Your task to perform on an android device: Install the Uber app Image 0: 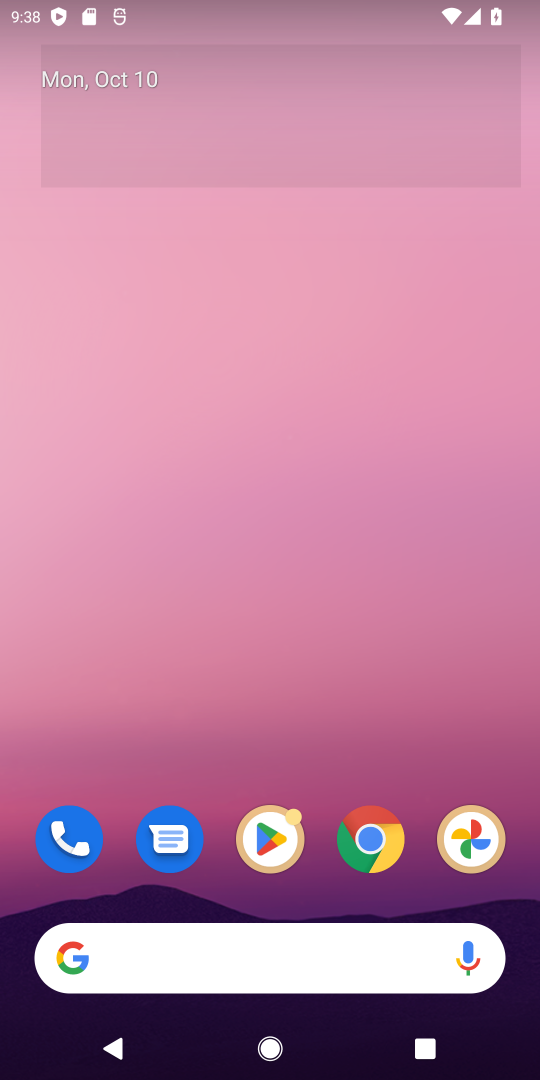
Step 0: drag from (313, 893) to (396, 25)
Your task to perform on an android device: Install the Uber app Image 1: 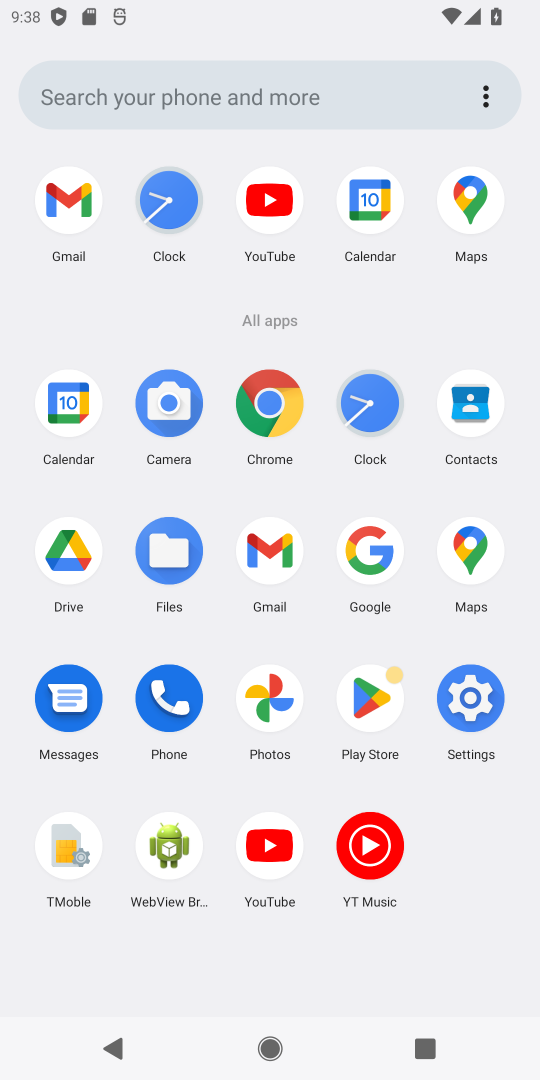
Step 1: click (372, 693)
Your task to perform on an android device: Install the Uber app Image 2: 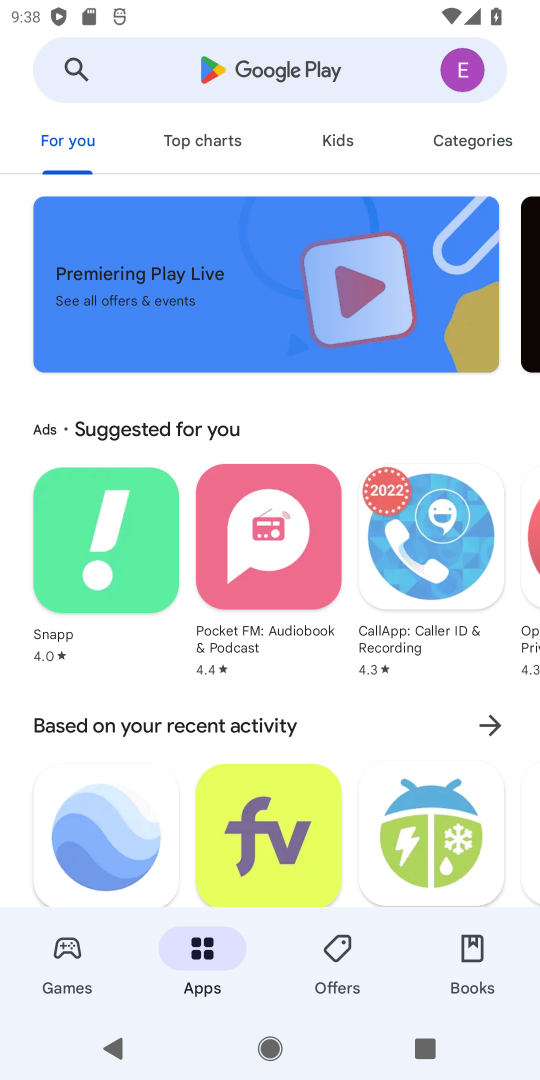
Step 2: click (213, 68)
Your task to perform on an android device: Install the Uber app Image 3: 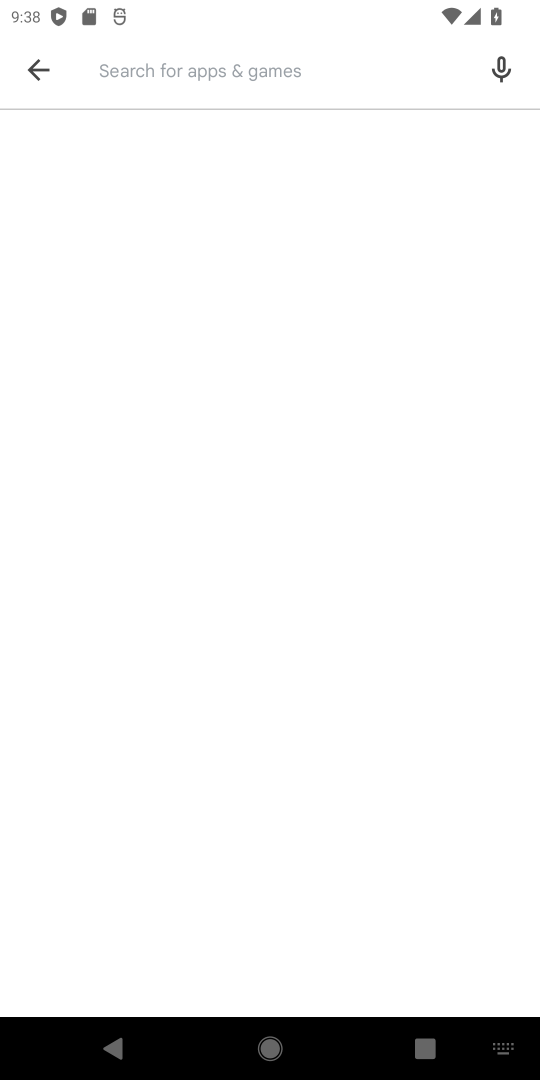
Step 3: type "Uber "
Your task to perform on an android device: Install the Uber app Image 4: 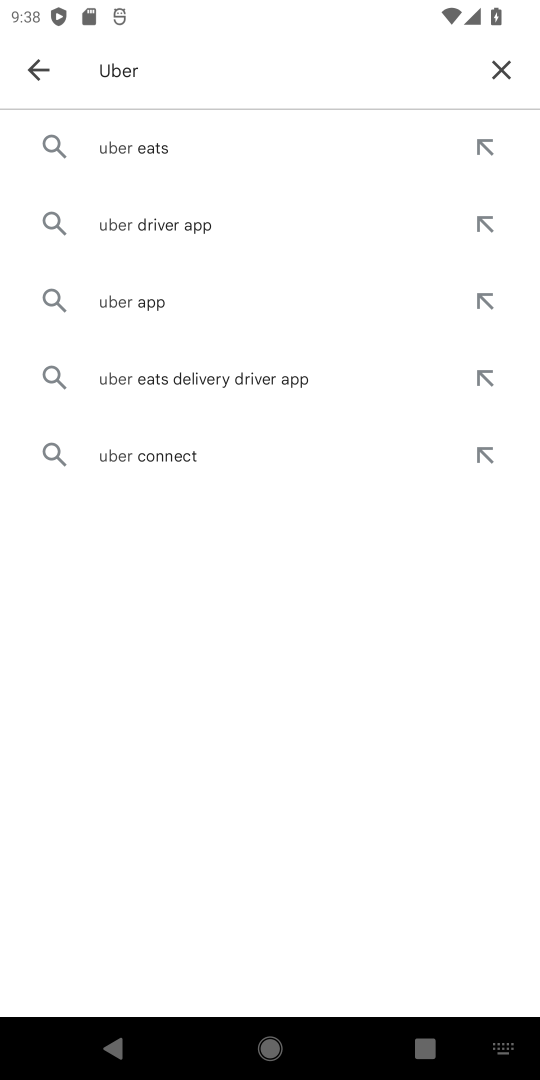
Step 4: press enter
Your task to perform on an android device: Install the Uber app Image 5: 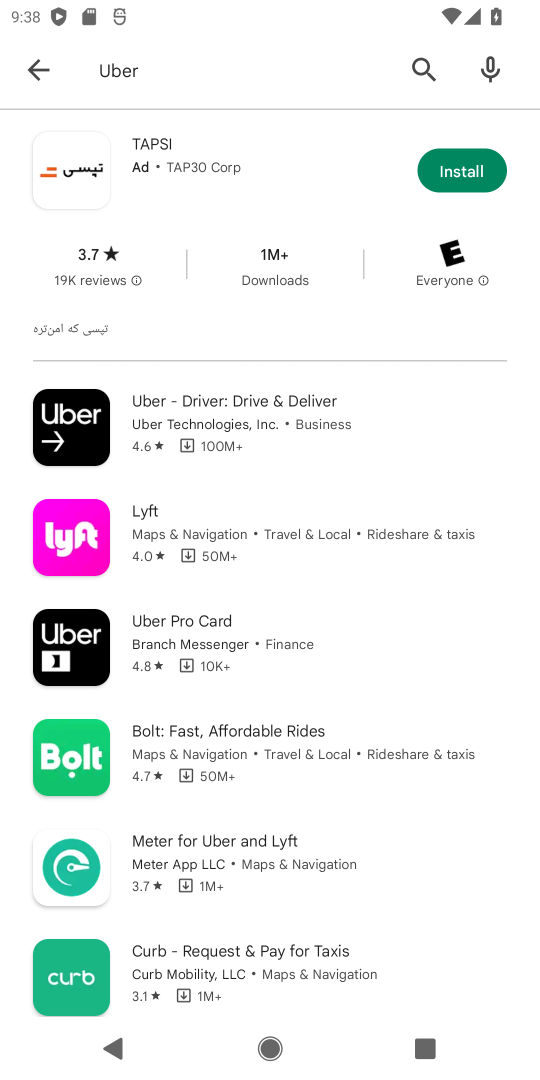
Step 5: click (215, 448)
Your task to perform on an android device: Install the Uber app Image 6: 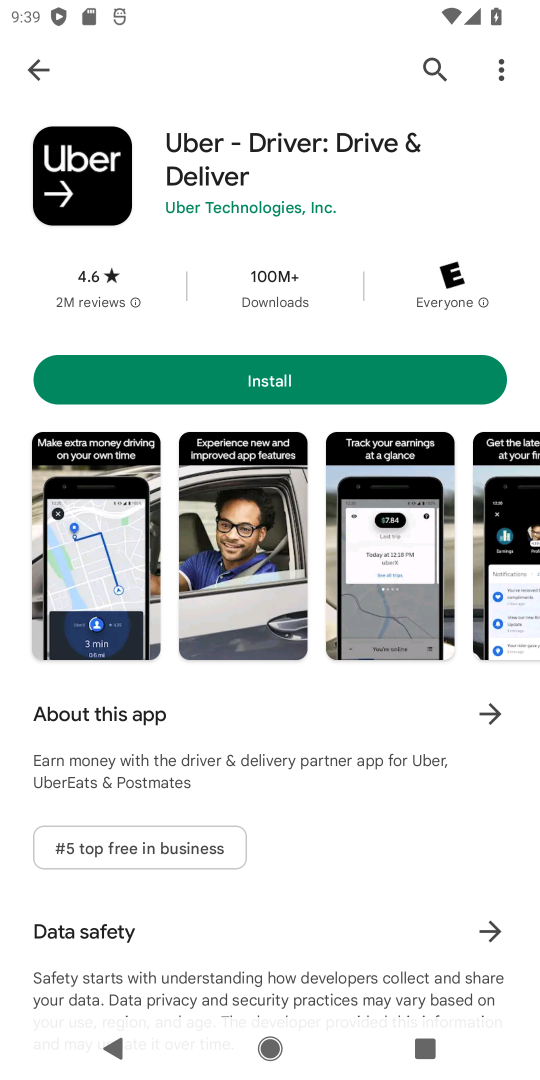
Step 6: click (311, 377)
Your task to perform on an android device: Install the Uber app Image 7: 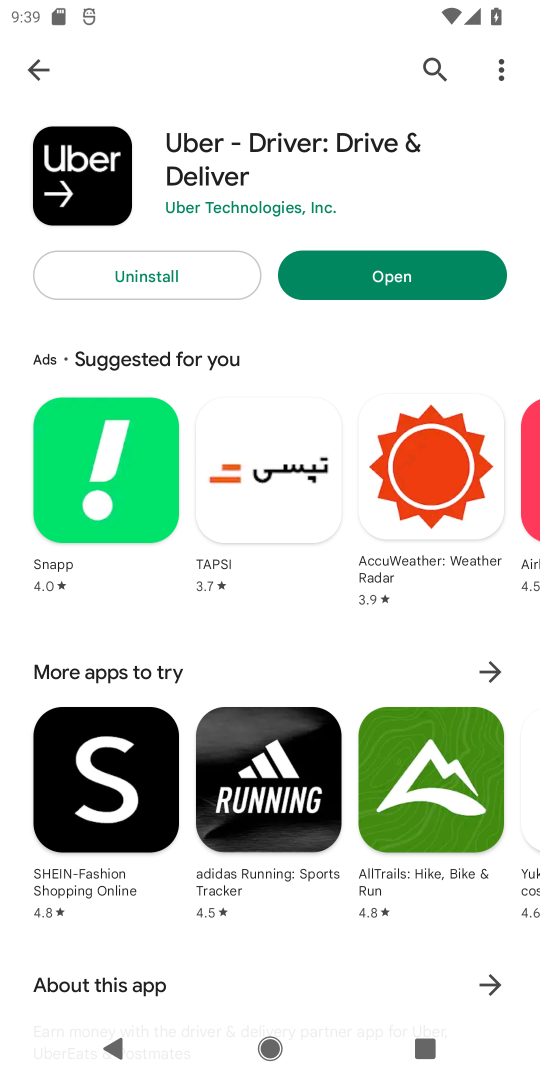
Step 7: task complete